Your task to perform on an android device: What's the weather? Image 0: 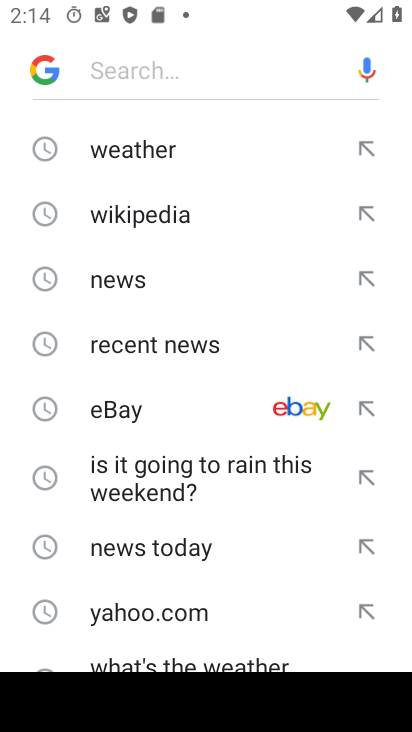
Step 0: click (149, 143)
Your task to perform on an android device: What's the weather? Image 1: 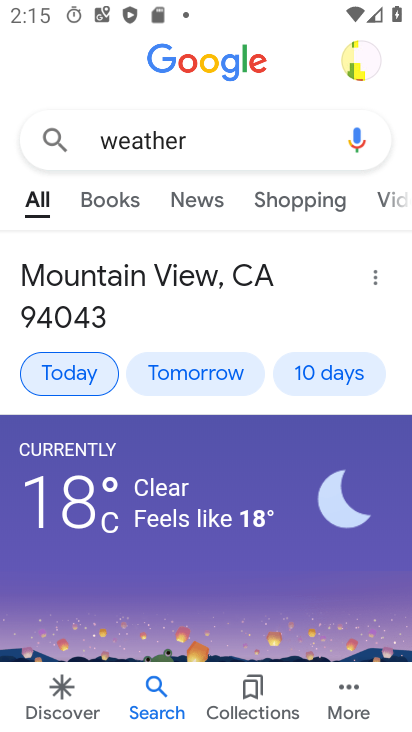
Step 1: task complete